Your task to perform on an android device: Open ESPN.com Image 0: 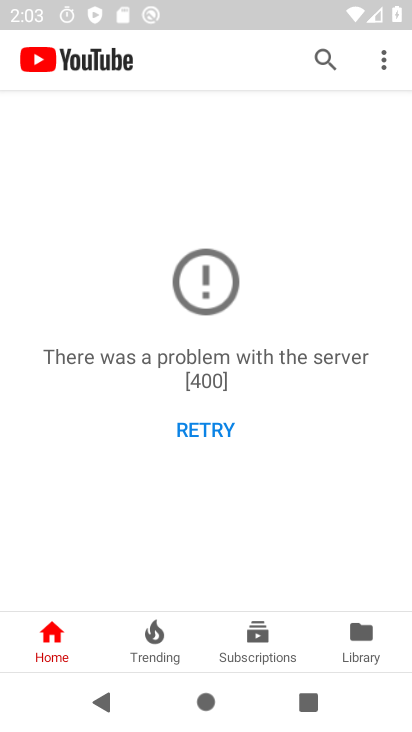
Step 0: press back button
Your task to perform on an android device: Open ESPN.com Image 1: 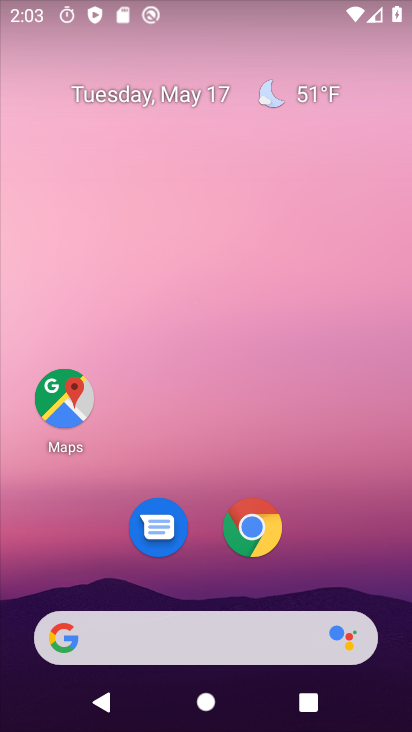
Step 1: click (249, 525)
Your task to perform on an android device: Open ESPN.com Image 2: 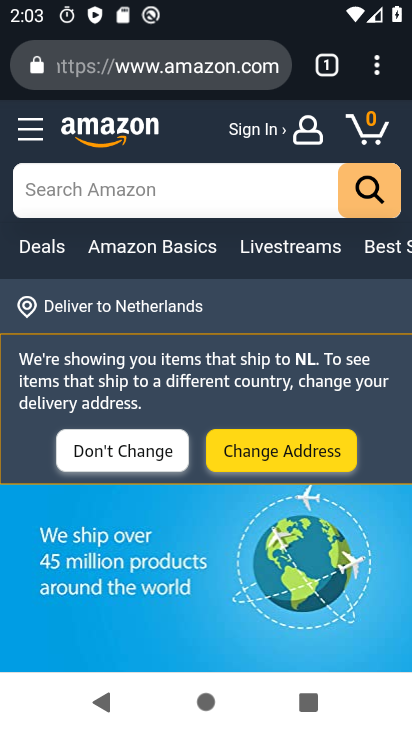
Step 2: click (260, 72)
Your task to perform on an android device: Open ESPN.com Image 3: 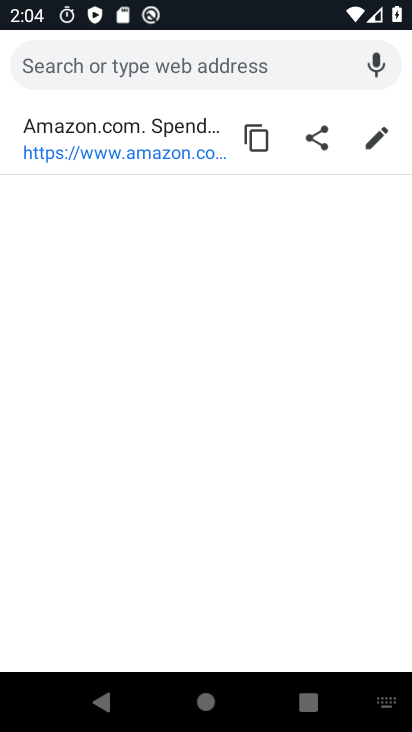
Step 3: type "ESPN.com"
Your task to perform on an android device: Open ESPN.com Image 4: 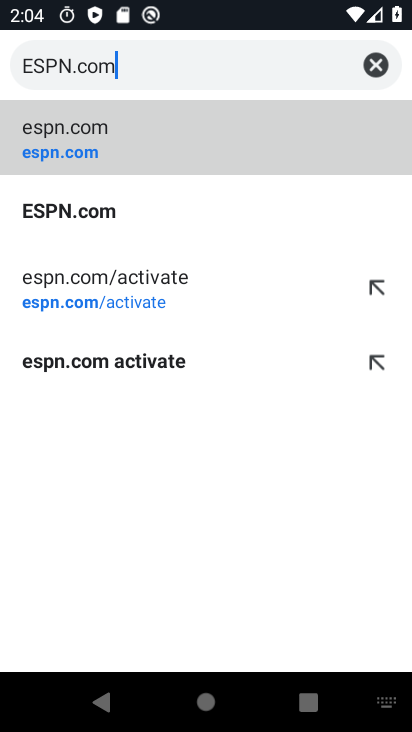
Step 4: click (65, 212)
Your task to perform on an android device: Open ESPN.com Image 5: 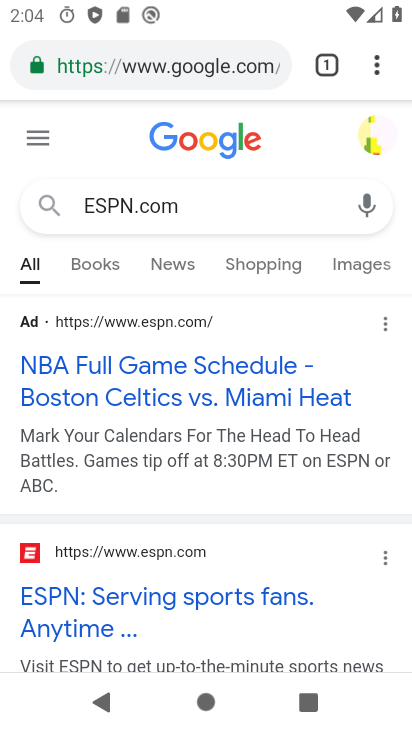
Step 5: click (157, 592)
Your task to perform on an android device: Open ESPN.com Image 6: 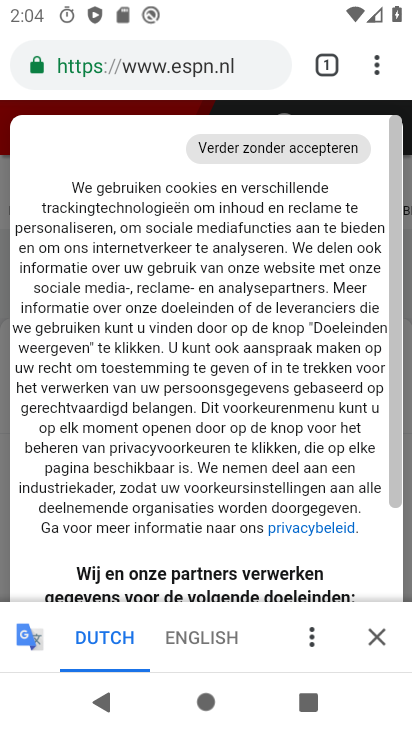
Step 6: task complete